Your task to perform on an android device: What's the weather today? Image 0: 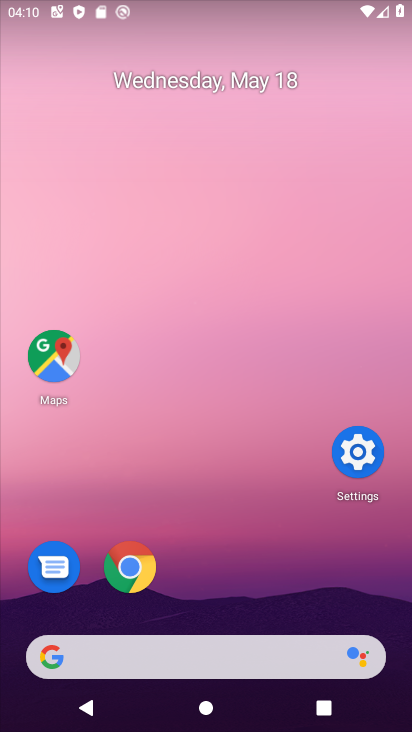
Step 0: click (137, 555)
Your task to perform on an android device: What's the weather today? Image 1: 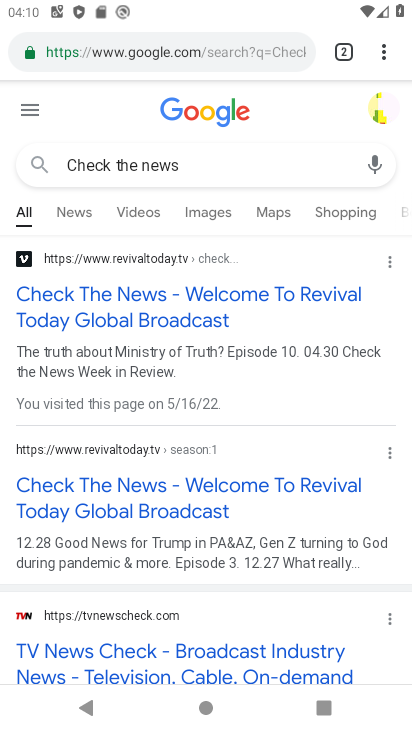
Step 1: click (202, 57)
Your task to perform on an android device: What's the weather today? Image 2: 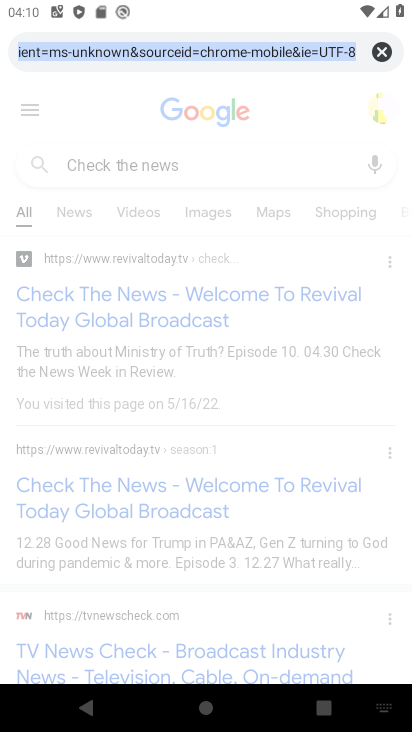
Step 2: click (374, 52)
Your task to perform on an android device: What's the weather today? Image 3: 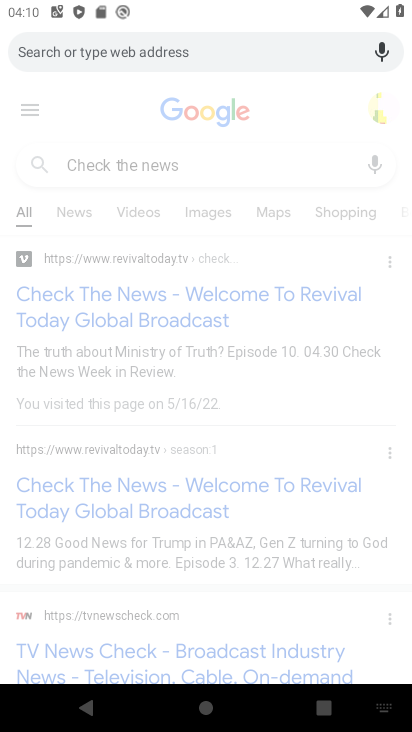
Step 3: type "What's the weather today?"
Your task to perform on an android device: What's the weather today? Image 4: 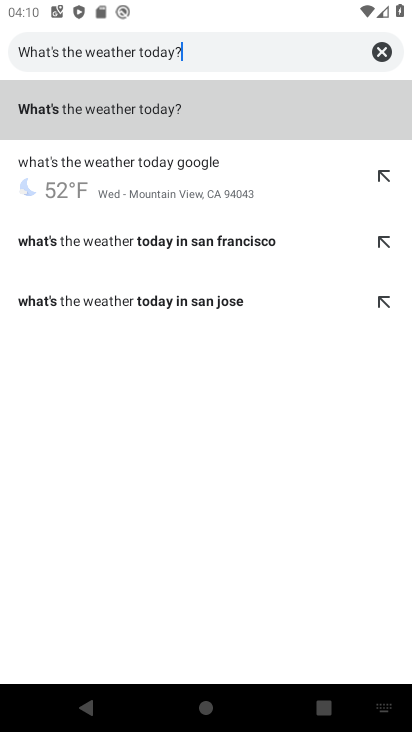
Step 4: click (49, 102)
Your task to perform on an android device: What's the weather today? Image 5: 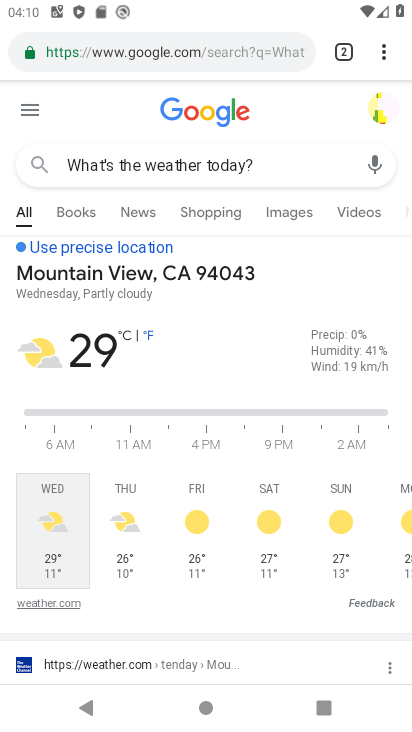
Step 5: task complete